Your task to perform on an android device: create a new album in the google photos Image 0: 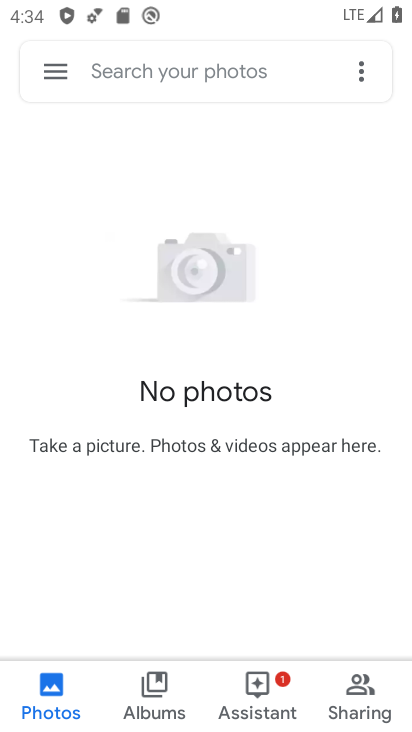
Step 0: click (152, 674)
Your task to perform on an android device: create a new album in the google photos Image 1: 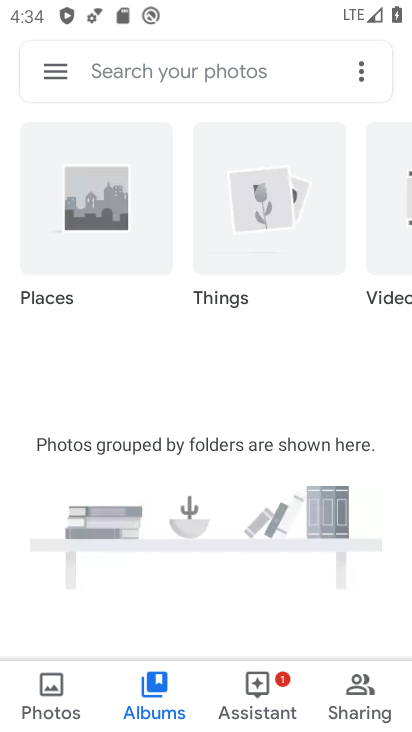
Step 1: task complete